Your task to perform on an android device: Show me productivity apps on the Play Store Image 0: 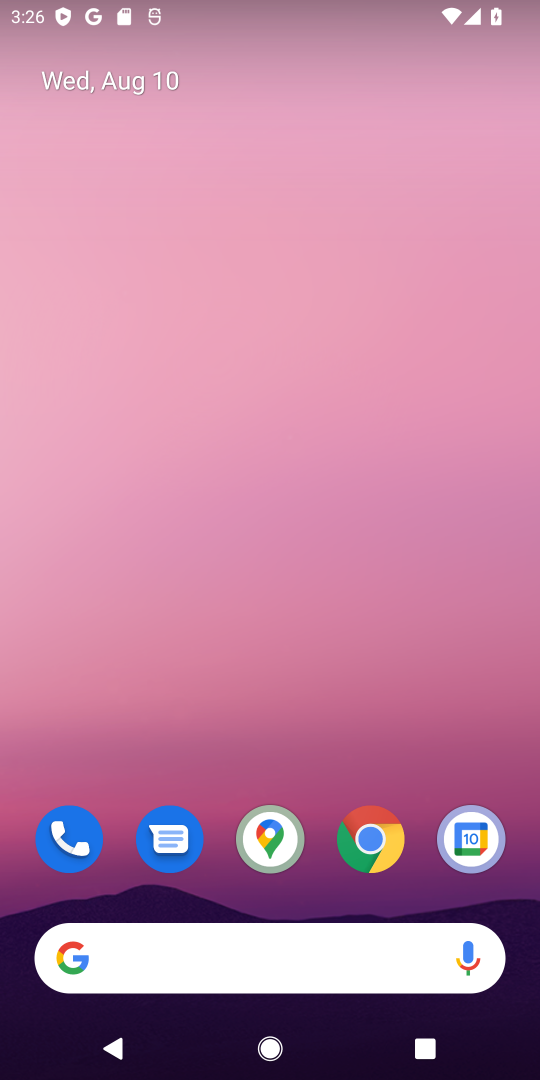
Step 0: drag from (72, 1021) to (270, 126)
Your task to perform on an android device: Show me productivity apps on the Play Store Image 1: 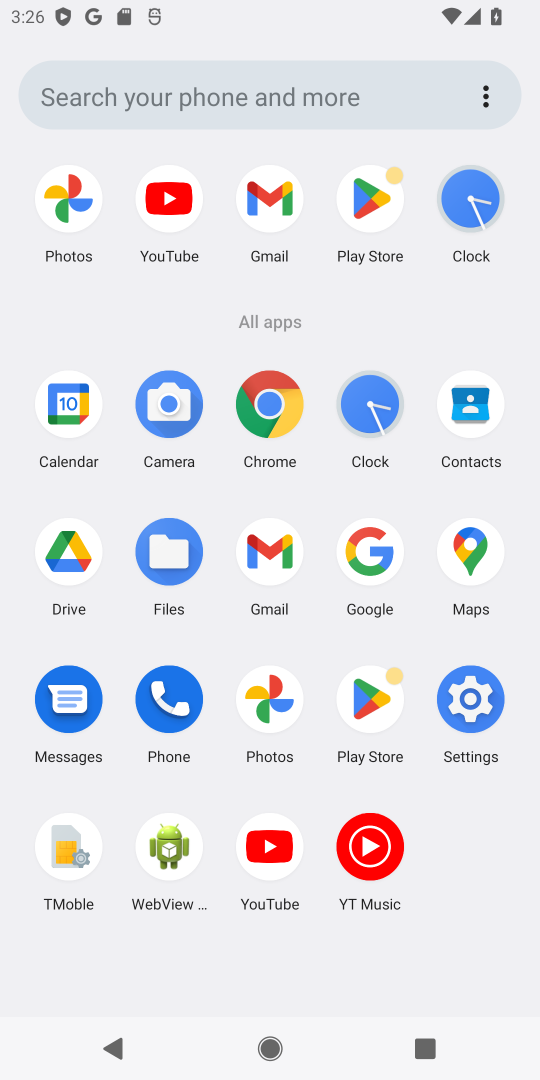
Step 1: click (385, 694)
Your task to perform on an android device: Show me productivity apps on the Play Store Image 2: 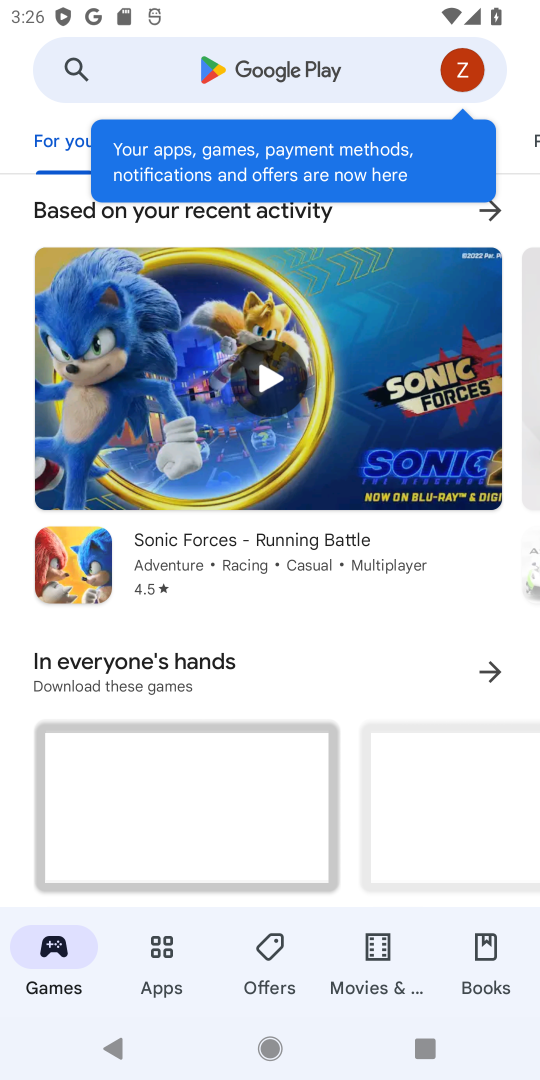
Step 2: click (150, 59)
Your task to perform on an android device: Show me productivity apps on the Play Store Image 3: 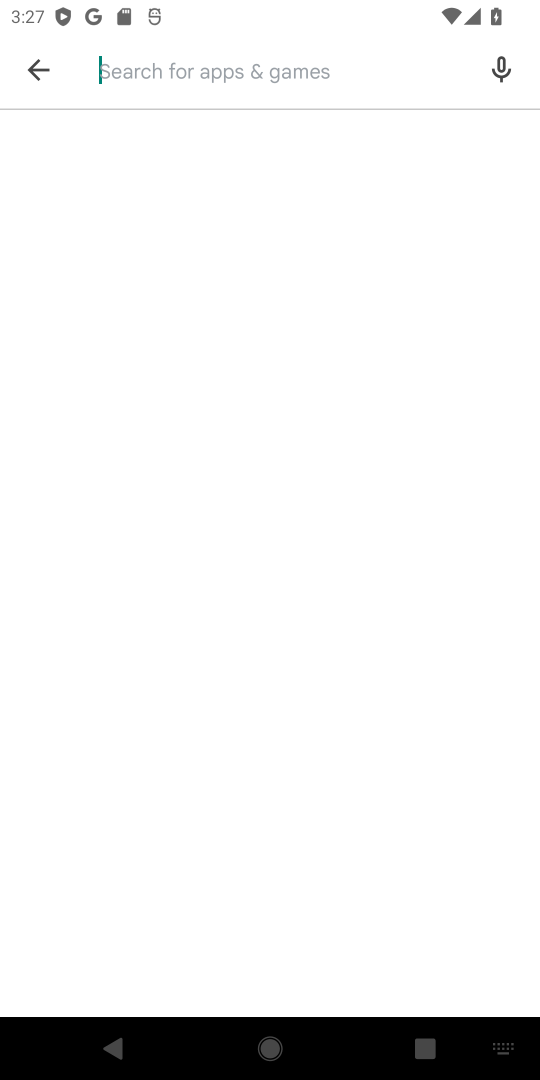
Step 3: type "productivity apps"
Your task to perform on an android device: Show me productivity apps on the Play Store Image 4: 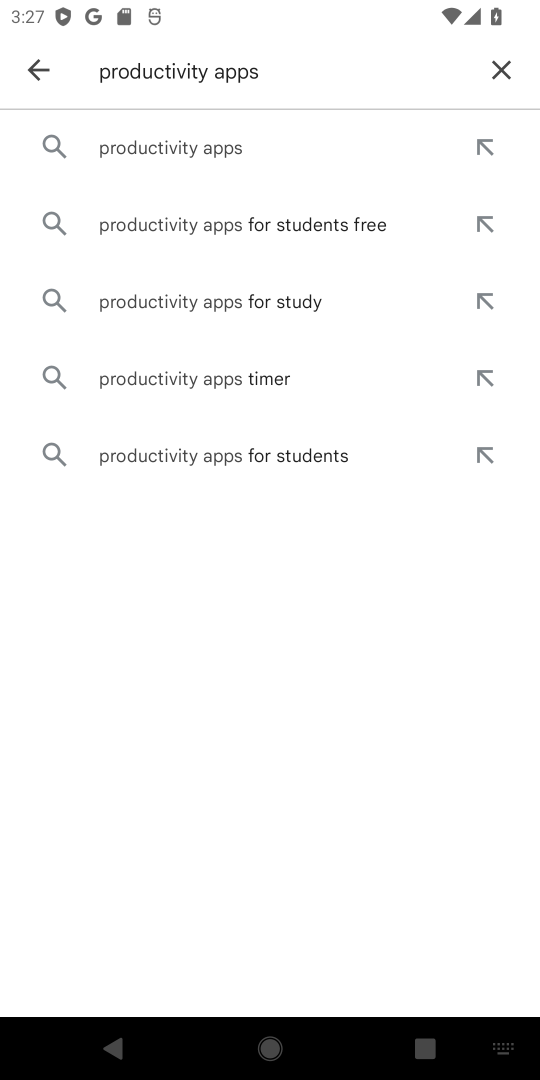
Step 4: click (200, 138)
Your task to perform on an android device: Show me productivity apps on the Play Store Image 5: 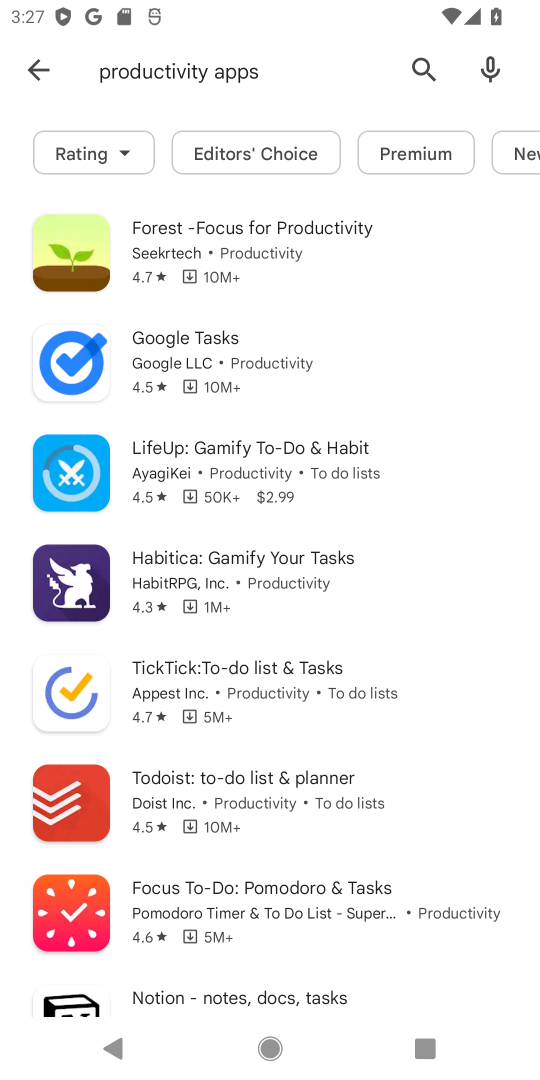
Step 5: task complete